Your task to perform on an android device: clear all cookies in the chrome app Image 0: 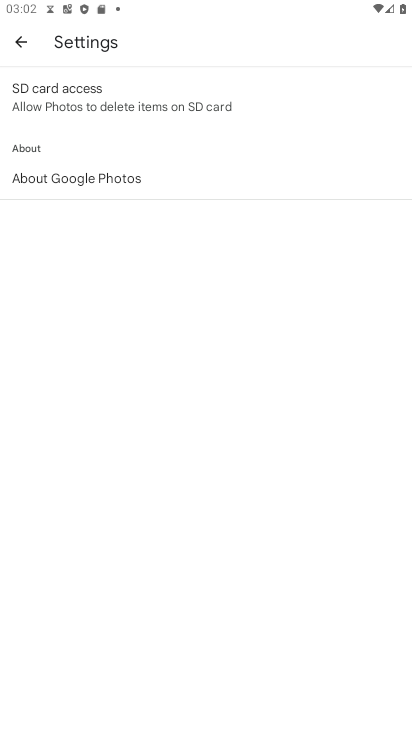
Step 0: click (16, 45)
Your task to perform on an android device: clear all cookies in the chrome app Image 1: 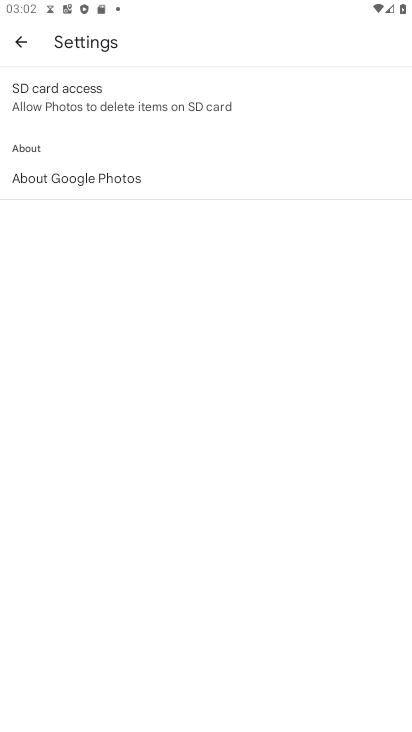
Step 1: click (16, 46)
Your task to perform on an android device: clear all cookies in the chrome app Image 2: 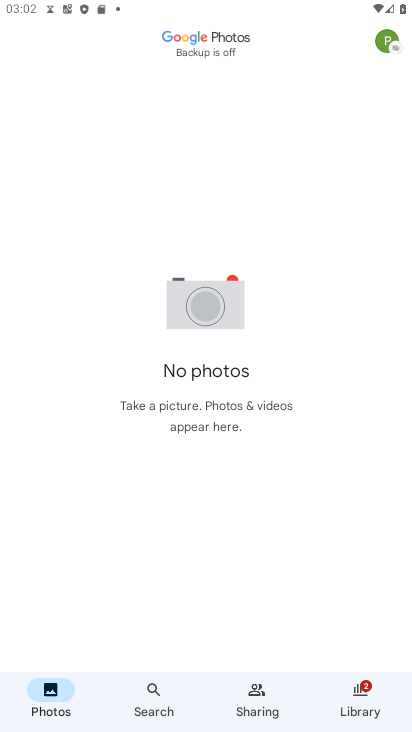
Step 2: press back button
Your task to perform on an android device: clear all cookies in the chrome app Image 3: 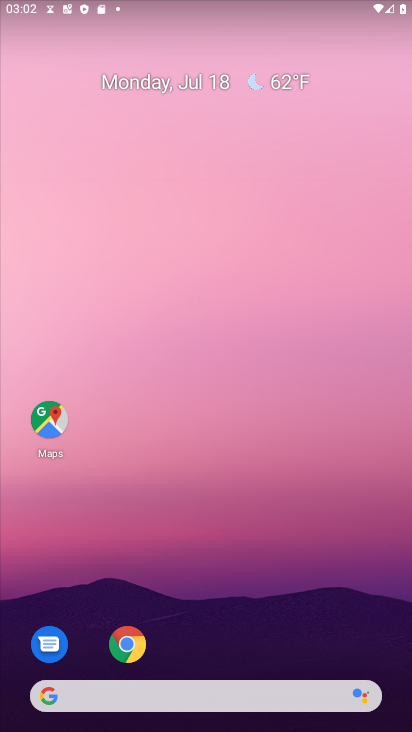
Step 3: drag from (282, 441) to (236, 104)
Your task to perform on an android device: clear all cookies in the chrome app Image 4: 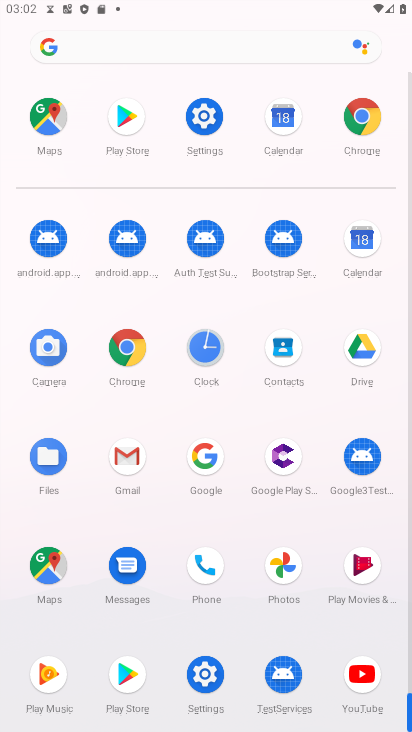
Step 4: click (362, 119)
Your task to perform on an android device: clear all cookies in the chrome app Image 5: 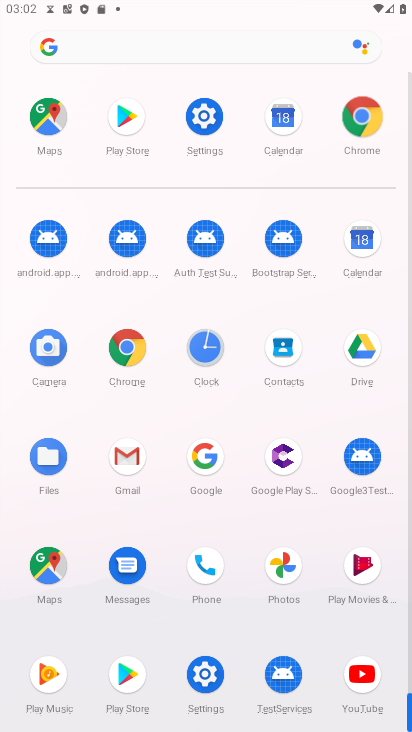
Step 5: click (361, 120)
Your task to perform on an android device: clear all cookies in the chrome app Image 6: 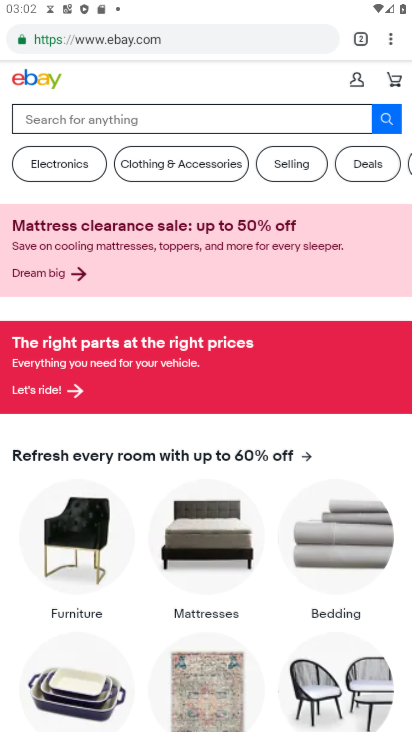
Step 6: drag from (388, 33) to (259, 471)
Your task to perform on an android device: clear all cookies in the chrome app Image 7: 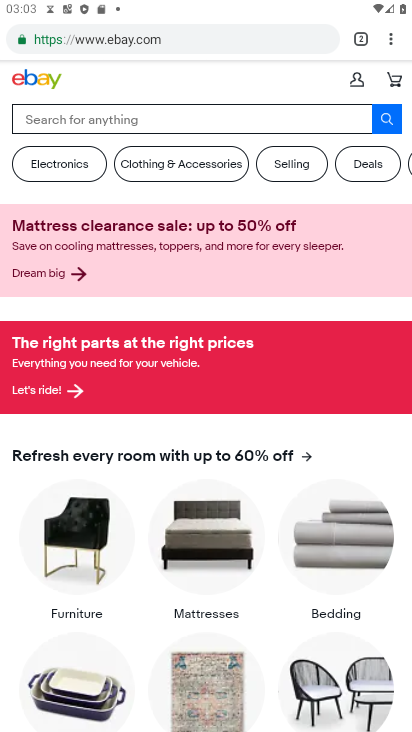
Step 7: click (259, 478)
Your task to perform on an android device: clear all cookies in the chrome app Image 8: 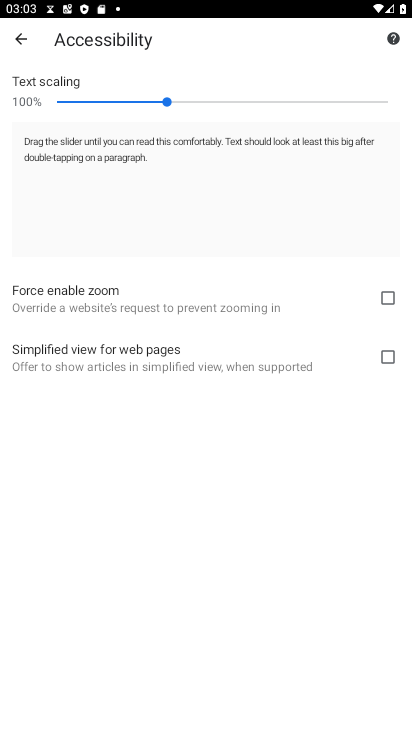
Step 8: click (10, 35)
Your task to perform on an android device: clear all cookies in the chrome app Image 9: 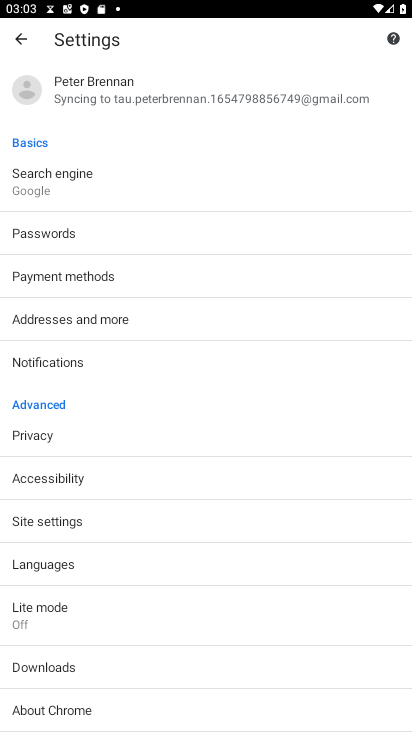
Step 9: click (44, 527)
Your task to perform on an android device: clear all cookies in the chrome app Image 10: 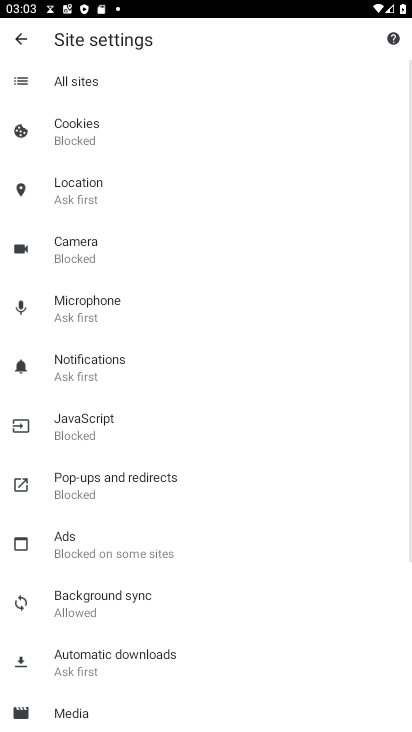
Step 10: click (95, 139)
Your task to perform on an android device: clear all cookies in the chrome app Image 11: 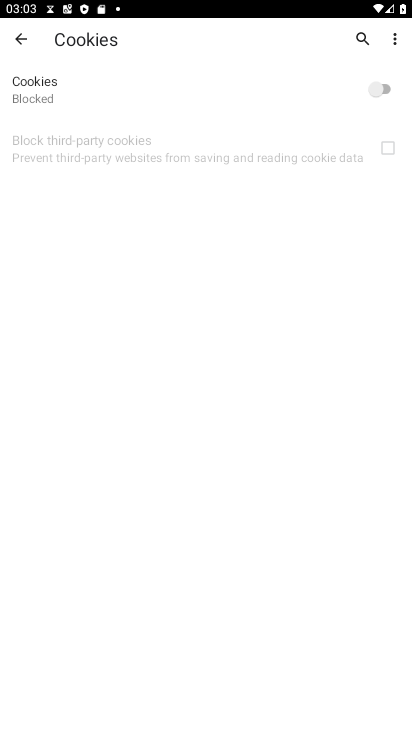
Step 11: task complete